Your task to perform on an android device: Search for rayovac triple a on amazon, select the first entry, and add it to the cart. Image 0: 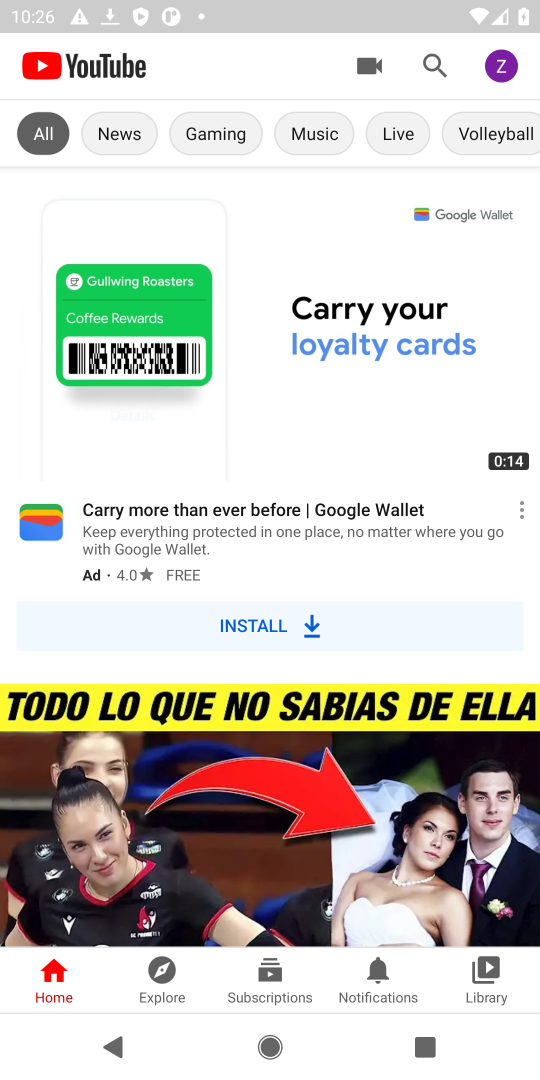
Step 0: press home button
Your task to perform on an android device: Search for rayovac triple a on amazon, select the first entry, and add it to the cart. Image 1: 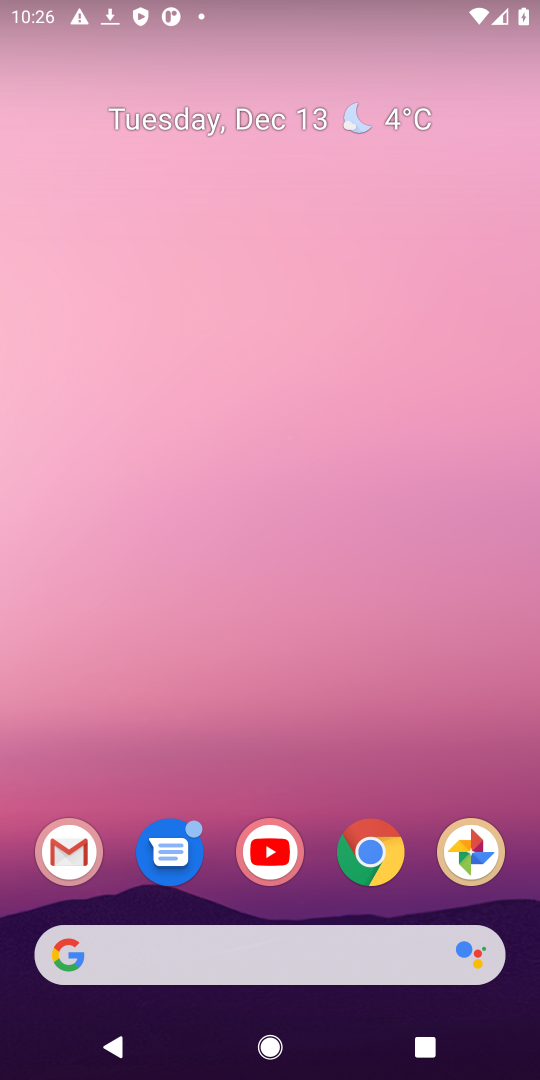
Step 1: click (145, 959)
Your task to perform on an android device: Search for rayovac triple a on amazon, select the first entry, and add it to the cart. Image 2: 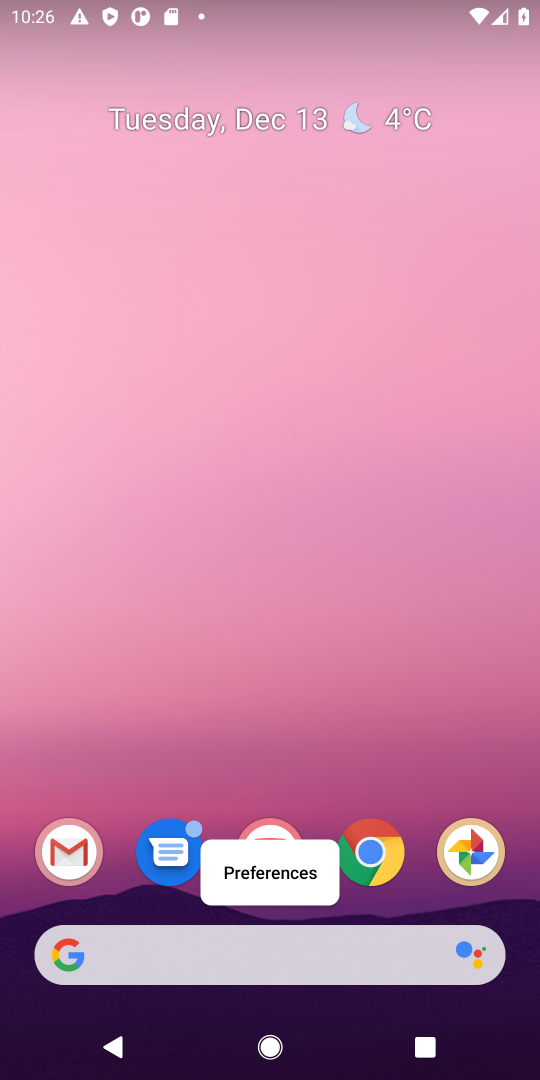
Step 2: click (104, 940)
Your task to perform on an android device: Search for rayovac triple a on amazon, select the first entry, and add it to the cart. Image 3: 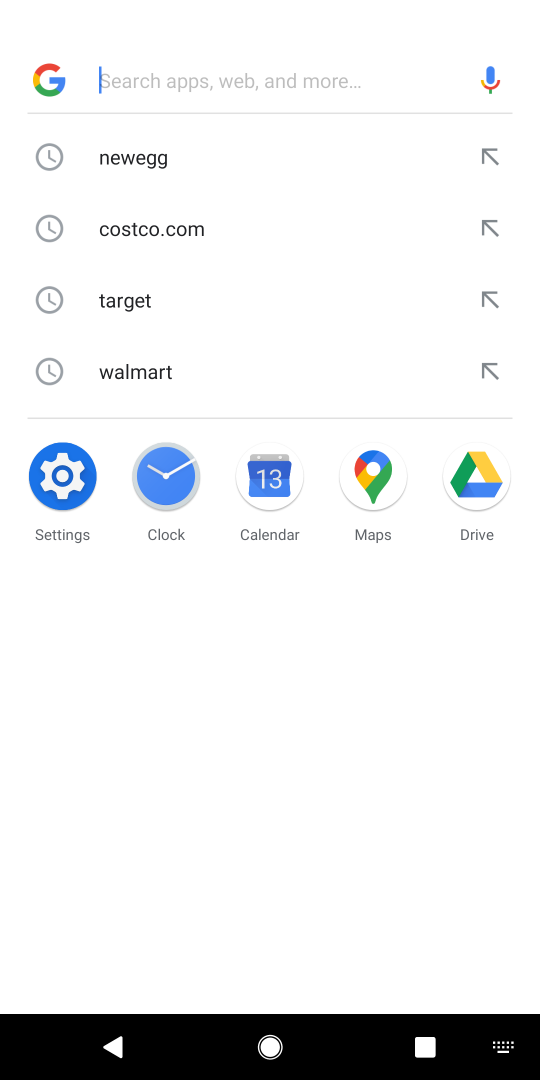
Step 3: press enter
Your task to perform on an android device: Search for rayovac triple a on amazon, select the first entry, and add it to the cart. Image 4: 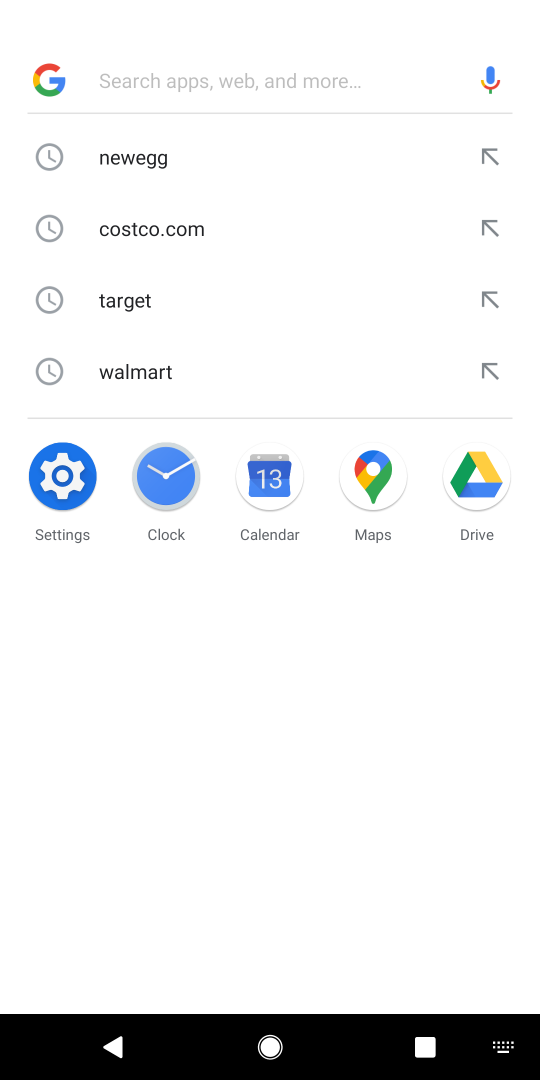
Step 4: type "amazon"
Your task to perform on an android device: Search for rayovac triple a on amazon, select the first entry, and add it to the cart. Image 5: 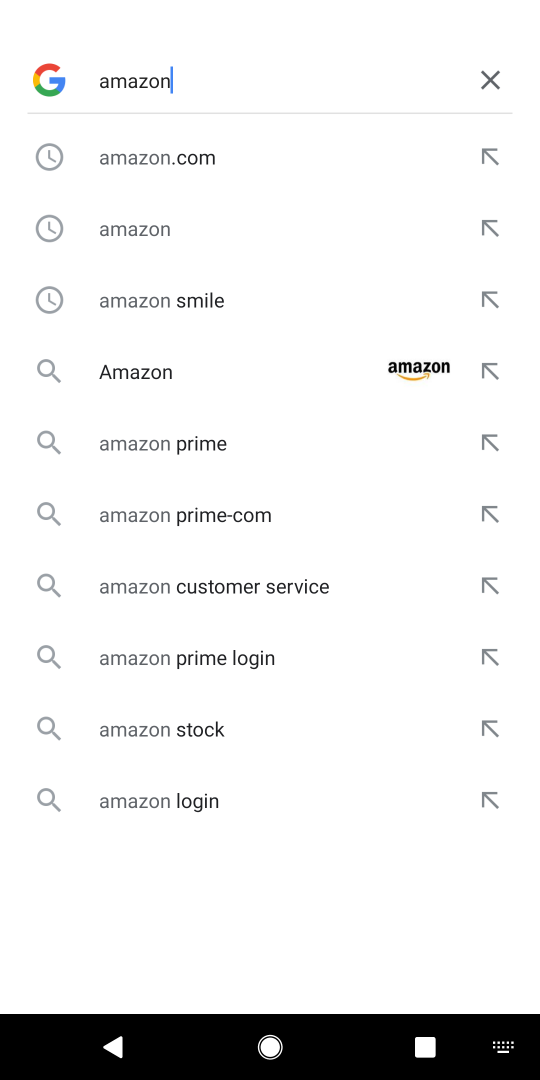
Step 5: press enter
Your task to perform on an android device: Search for rayovac triple a on amazon, select the first entry, and add it to the cart. Image 6: 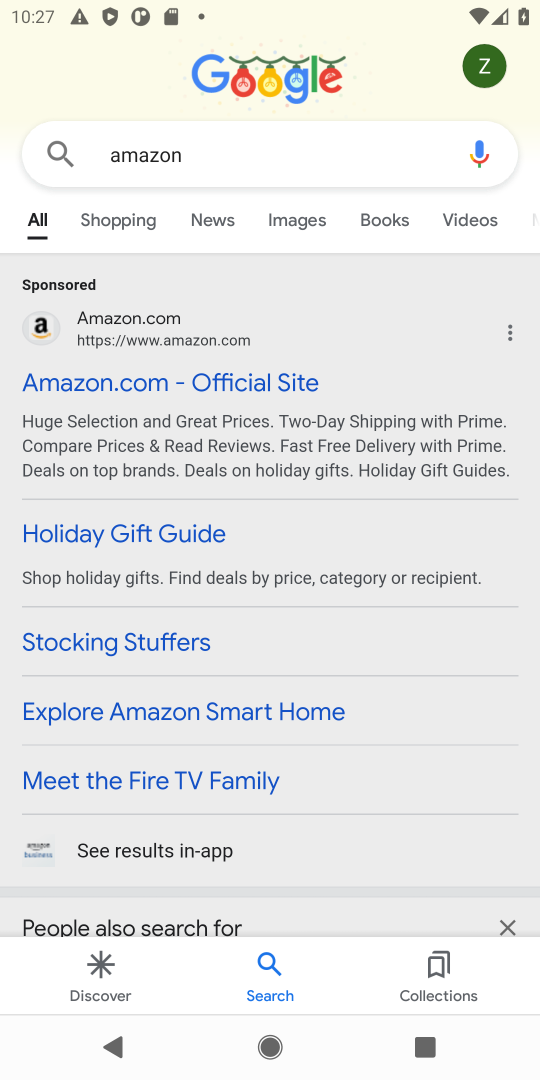
Step 6: click (249, 384)
Your task to perform on an android device: Search for rayovac triple a on amazon, select the first entry, and add it to the cart. Image 7: 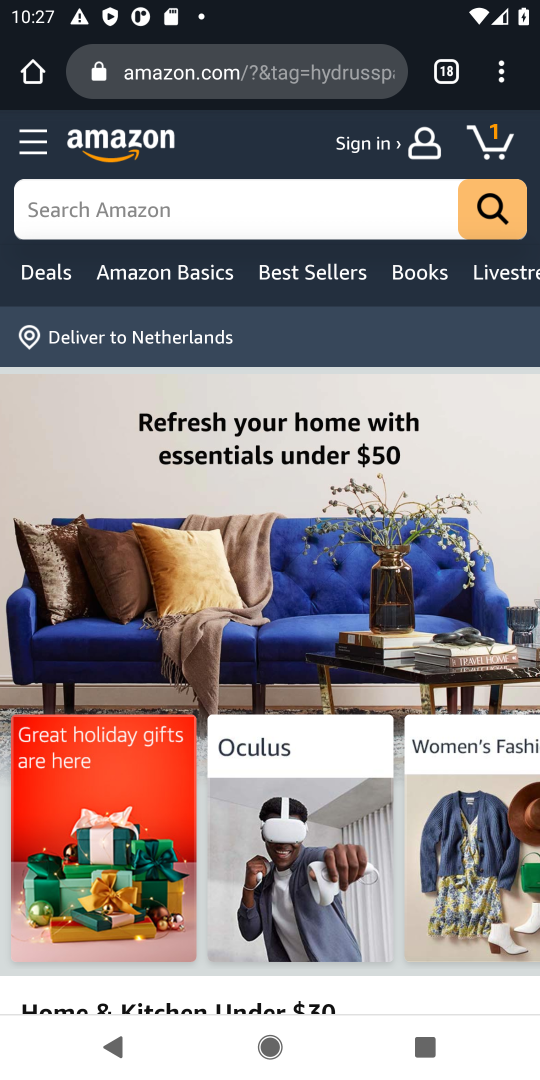
Step 7: click (89, 208)
Your task to perform on an android device: Search for rayovac triple a on amazon, select the first entry, and add it to the cart. Image 8: 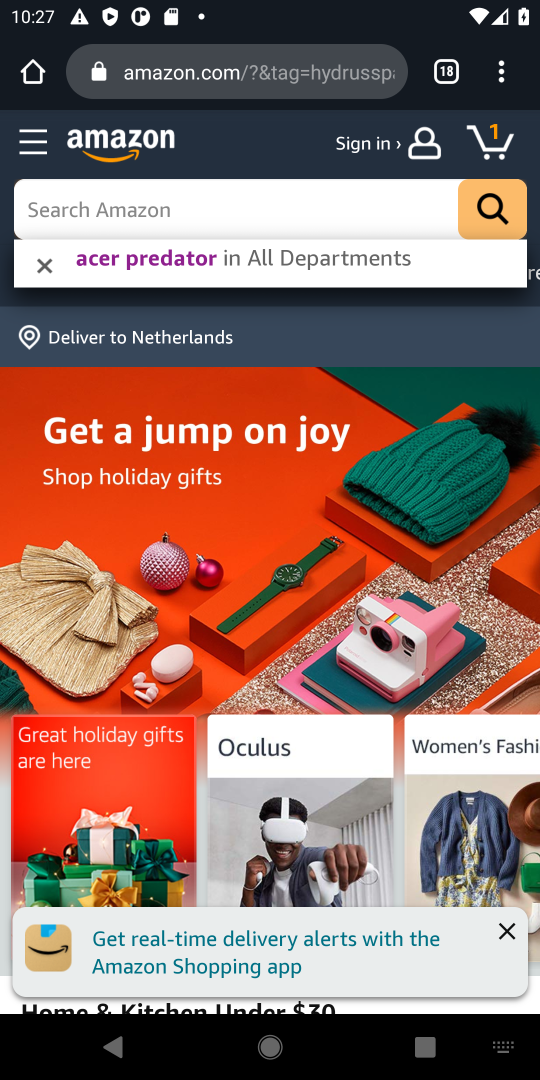
Step 8: type "rayovac triple a "
Your task to perform on an android device: Search for rayovac triple a on amazon, select the first entry, and add it to the cart. Image 9: 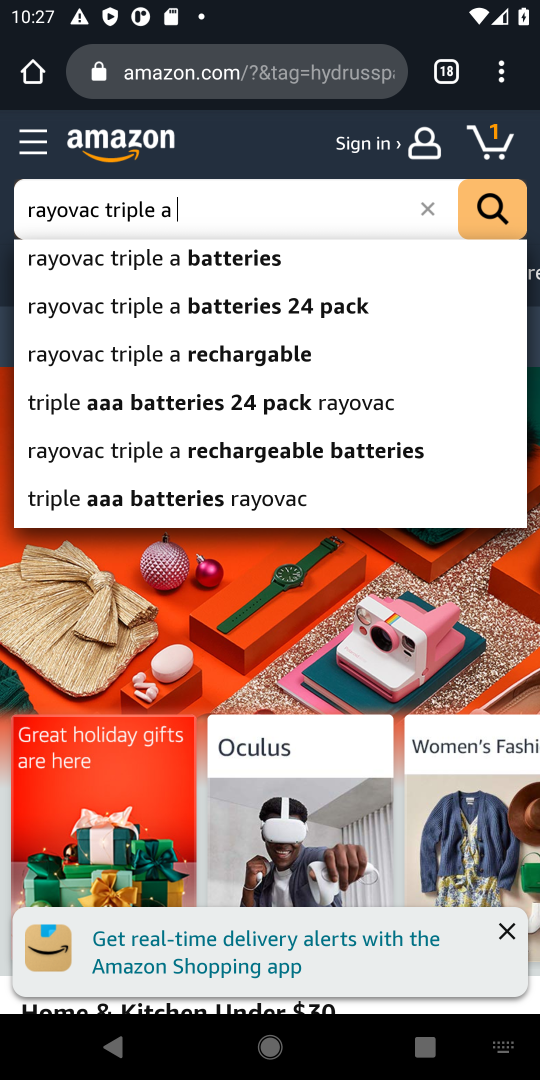
Step 9: press enter
Your task to perform on an android device: Search for rayovac triple a on amazon, select the first entry, and add it to the cart. Image 10: 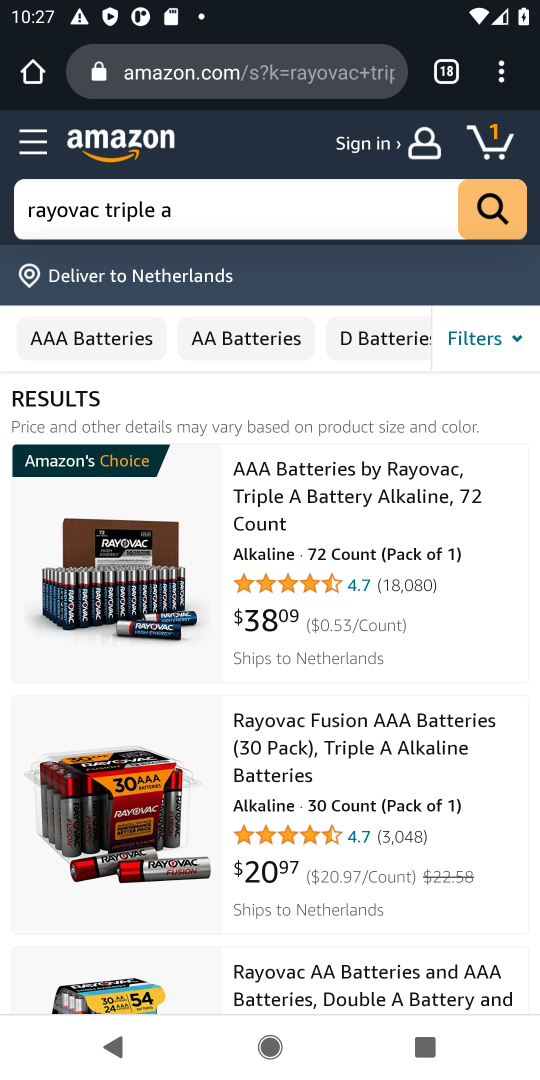
Step 10: click (347, 492)
Your task to perform on an android device: Search for rayovac triple a on amazon, select the first entry, and add it to the cart. Image 11: 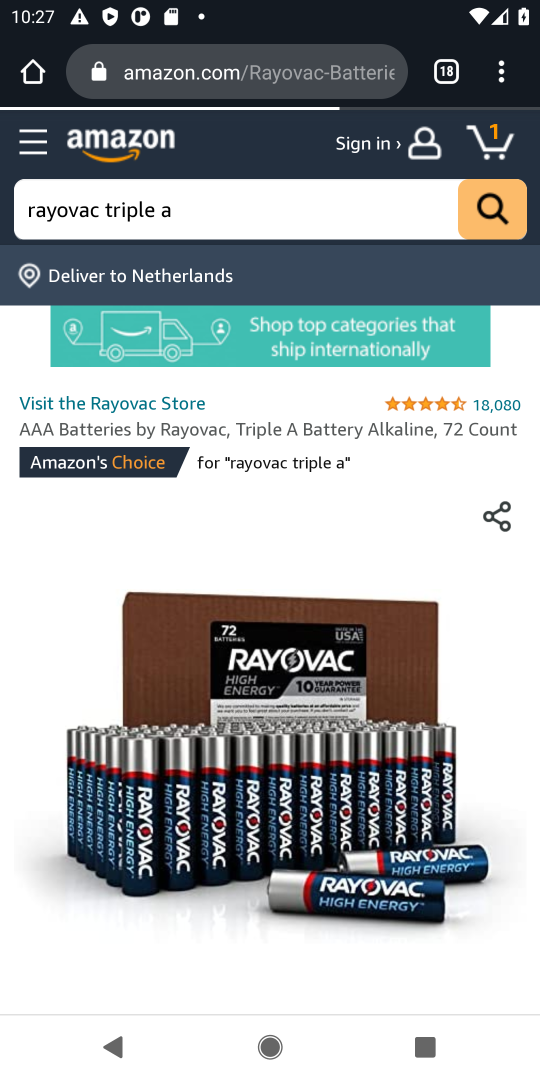
Step 11: drag from (323, 913) to (365, 431)
Your task to perform on an android device: Search for rayovac triple a on amazon, select the first entry, and add it to the cart. Image 12: 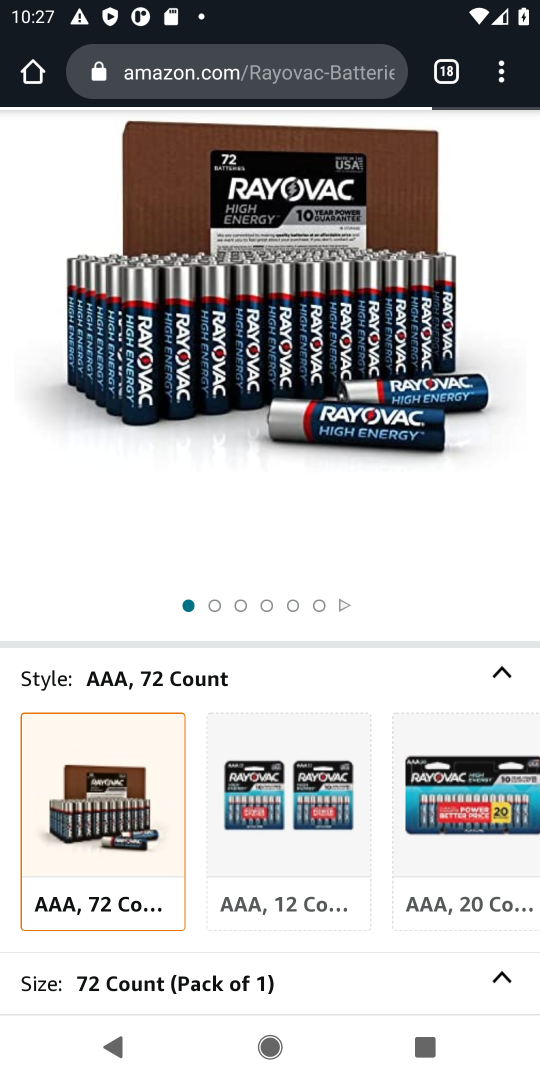
Step 12: drag from (275, 830) to (301, 356)
Your task to perform on an android device: Search for rayovac triple a on amazon, select the first entry, and add it to the cart. Image 13: 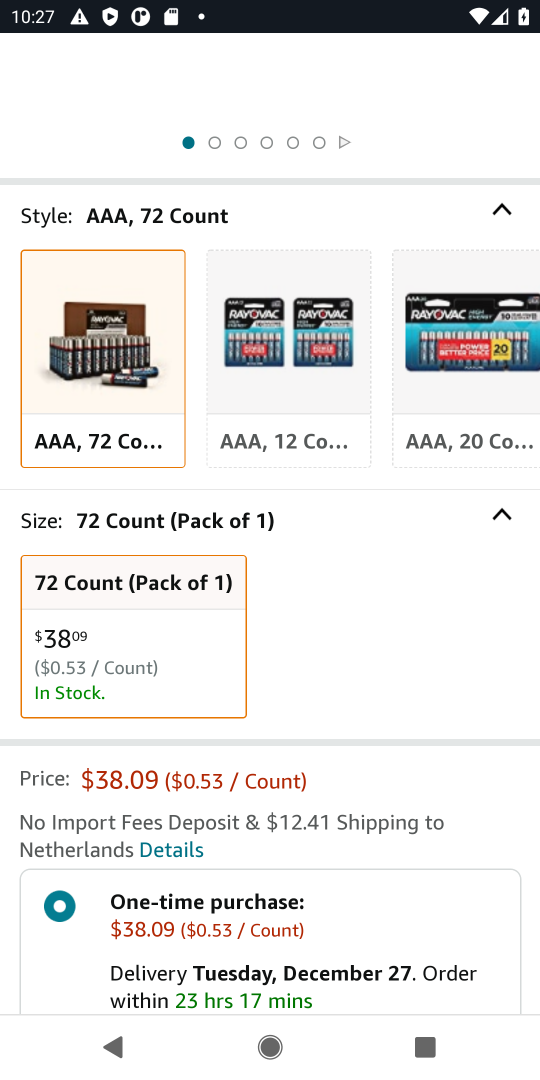
Step 13: drag from (282, 853) to (344, 420)
Your task to perform on an android device: Search for rayovac triple a on amazon, select the first entry, and add it to the cart. Image 14: 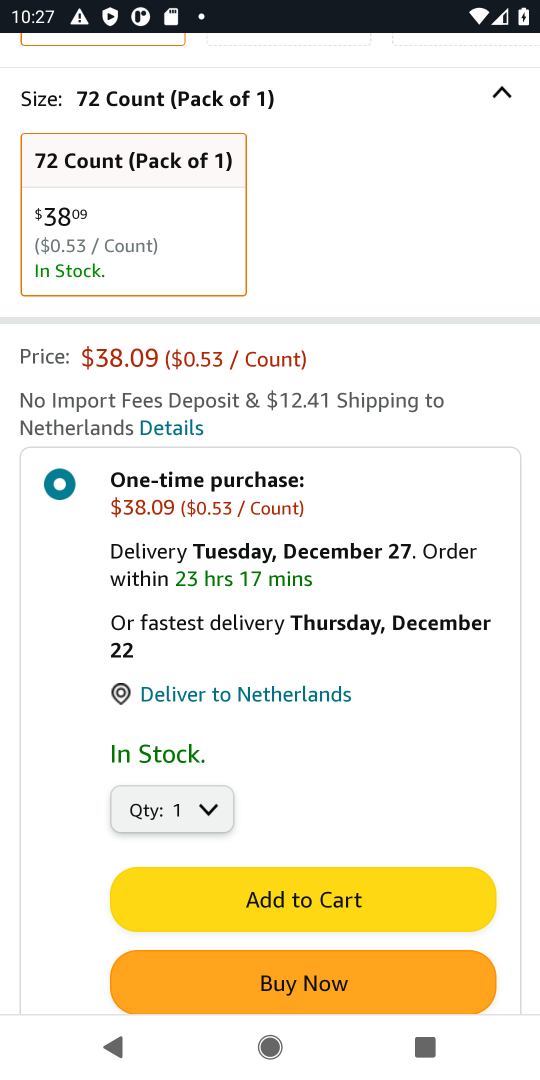
Step 14: drag from (271, 800) to (315, 375)
Your task to perform on an android device: Search for rayovac triple a on amazon, select the first entry, and add it to the cart. Image 15: 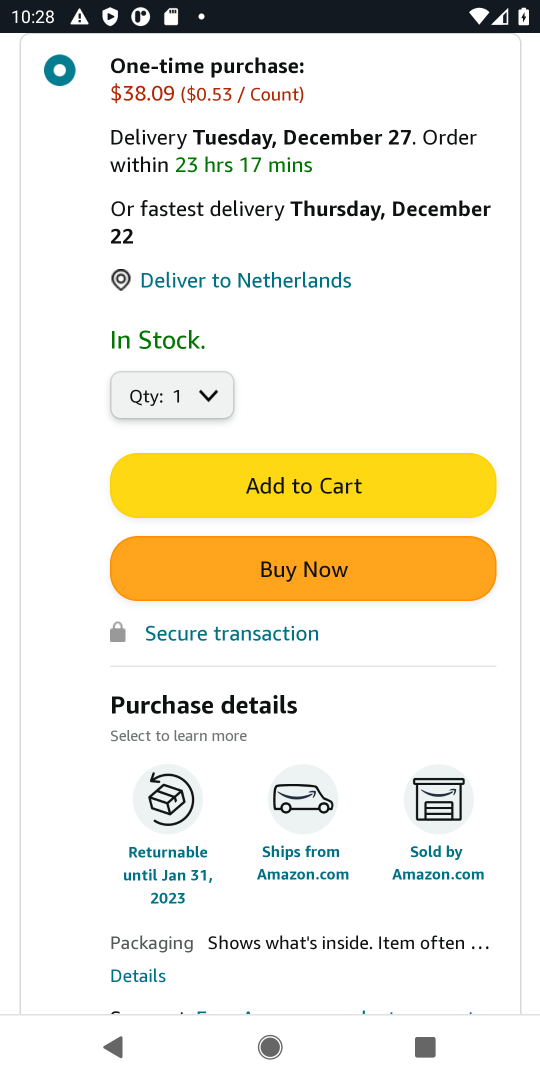
Step 15: click (296, 495)
Your task to perform on an android device: Search for rayovac triple a on amazon, select the first entry, and add it to the cart. Image 16: 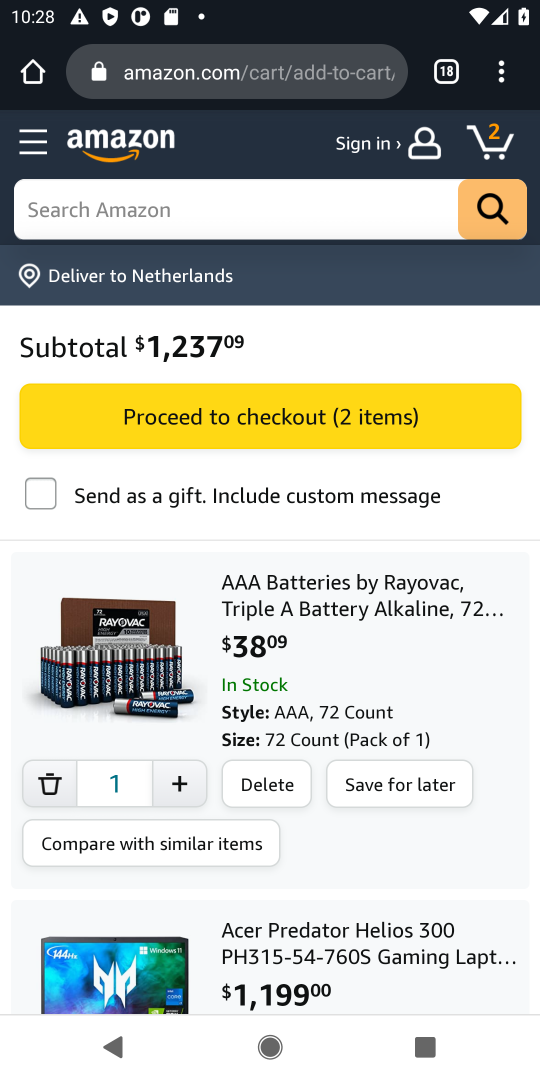
Step 16: task complete